Your task to perform on an android device: delete a single message in the gmail app Image 0: 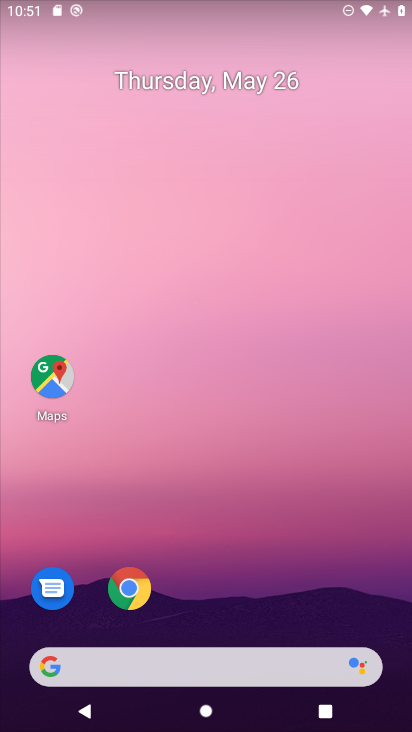
Step 0: drag from (357, 600) to (304, 108)
Your task to perform on an android device: delete a single message in the gmail app Image 1: 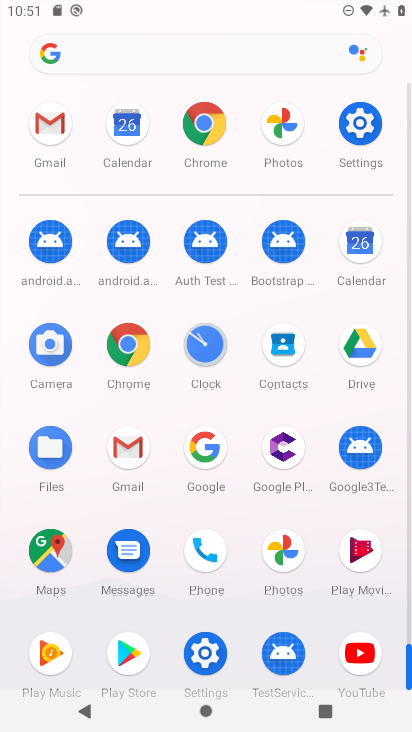
Step 1: click (411, 640)
Your task to perform on an android device: delete a single message in the gmail app Image 2: 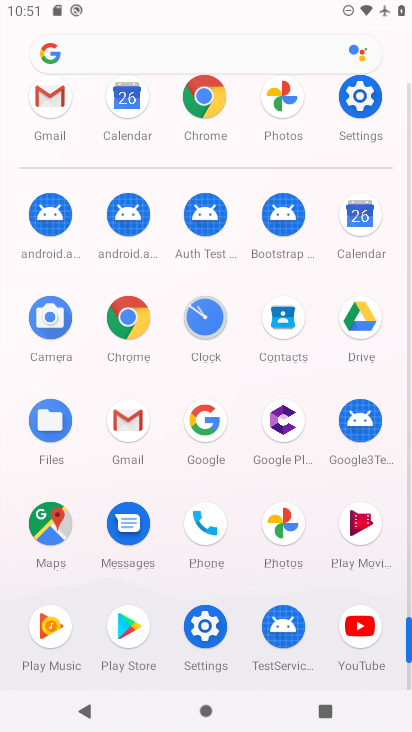
Step 2: click (126, 418)
Your task to perform on an android device: delete a single message in the gmail app Image 3: 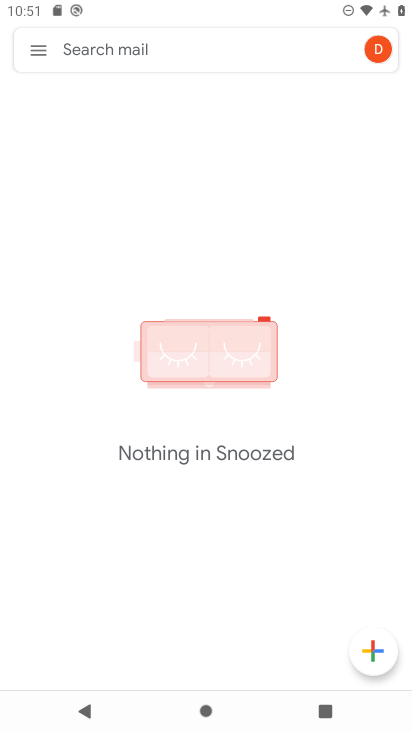
Step 3: click (37, 47)
Your task to perform on an android device: delete a single message in the gmail app Image 4: 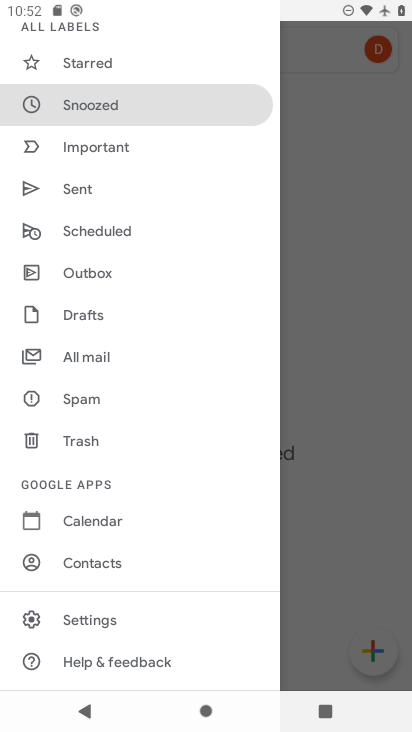
Step 4: click (89, 360)
Your task to perform on an android device: delete a single message in the gmail app Image 5: 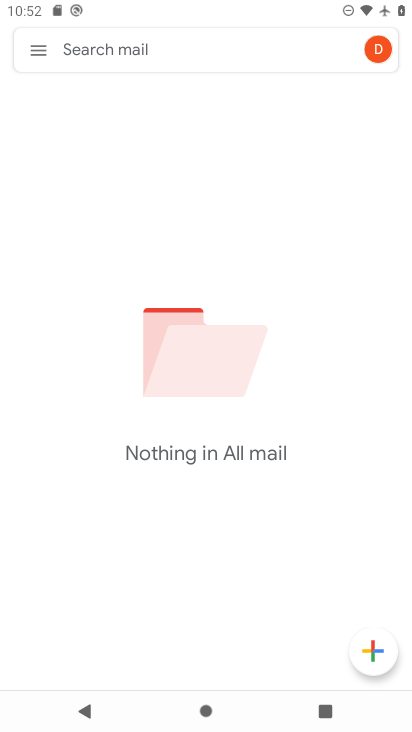
Step 5: task complete